Your task to perform on an android device: Search for hotels in Mexico city Image 0: 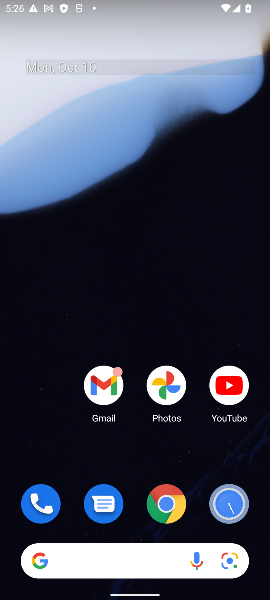
Step 0: drag from (103, 435) to (119, 48)
Your task to perform on an android device: Search for hotels in Mexico city Image 1: 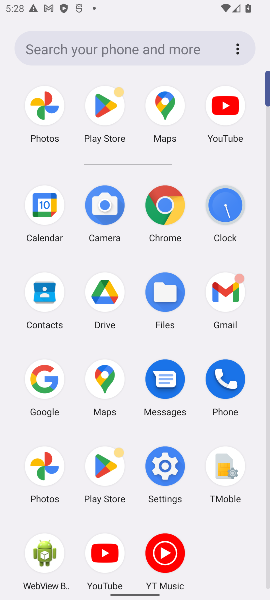
Step 1: click (181, 199)
Your task to perform on an android device: Search for hotels in Mexico city Image 2: 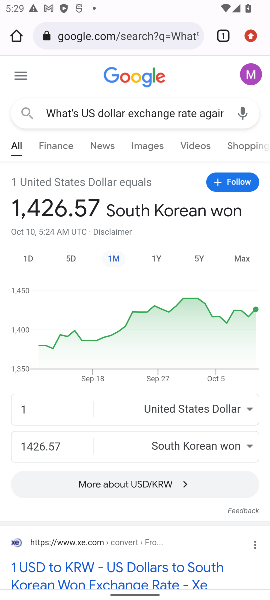
Step 2: click (135, 46)
Your task to perform on an android device: Search for hotels in Mexico city Image 3: 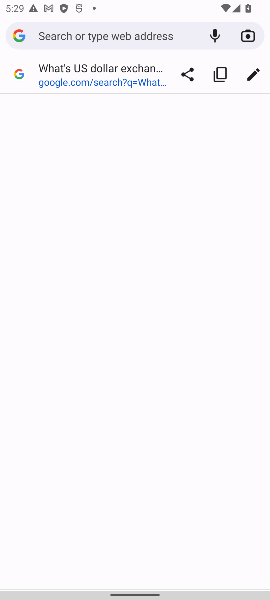
Step 3: click (133, 31)
Your task to perform on an android device: Search for hotels in Mexico city Image 4: 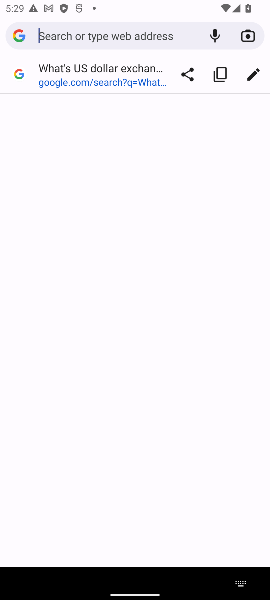
Step 4: type "Search for hotels in Mexico city"
Your task to perform on an android device: Search for hotels in Mexico city Image 5: 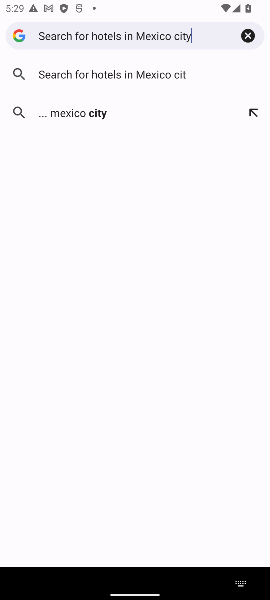
Step 5: press enter
Your task to perform on an android device: Search for hotels in Mexico city Image 6: 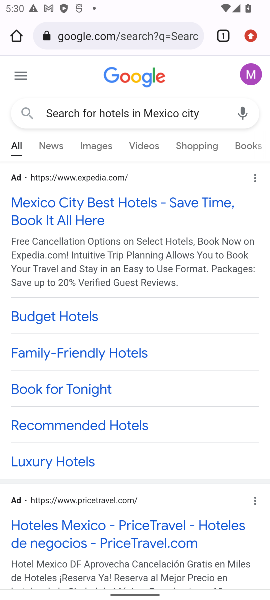
Step 6: click (86, 211)
Your task to perform on an android device: Search for hotels in Mexico city Image 7: 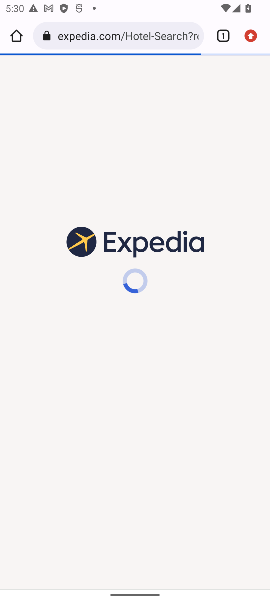
Step 7: task complete